Your task to perform on an android device: Go to ESPN.com Image 0: 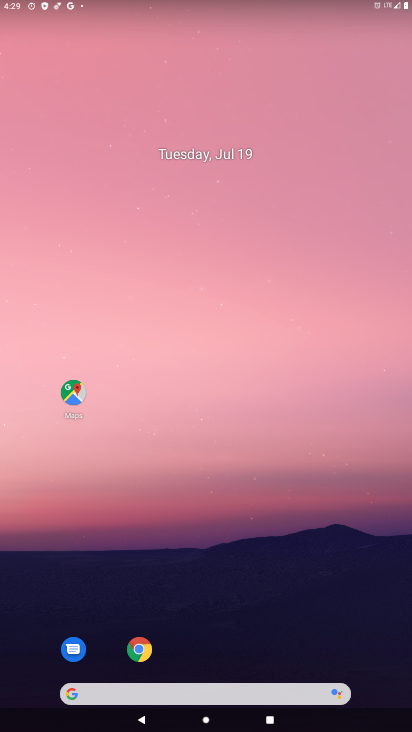
Step 0: drag from (360, 635) to (253, 161)
Your task to perform on an android device: Go to ESPN.com Image 1: 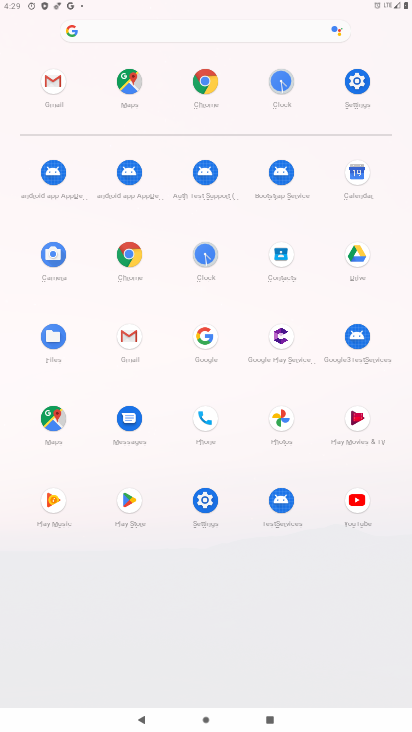
Step 1: click (200, 83)
Your task to perform on an android device: Go to ESPN.com Image 2: 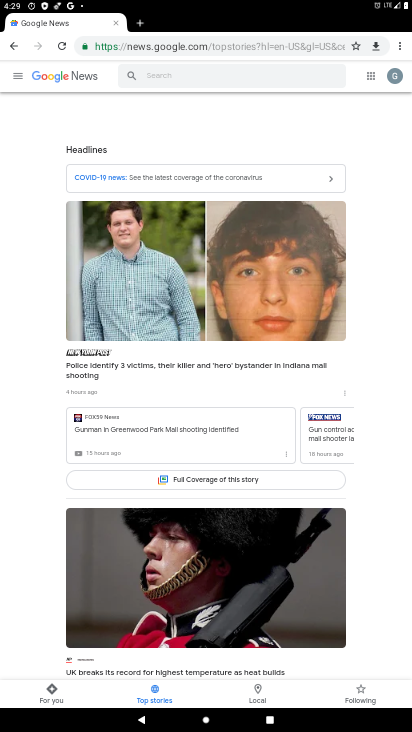
Step 2: click (139, 22)
Your task to perform on an android device: Go to ESPN.com Image 3: 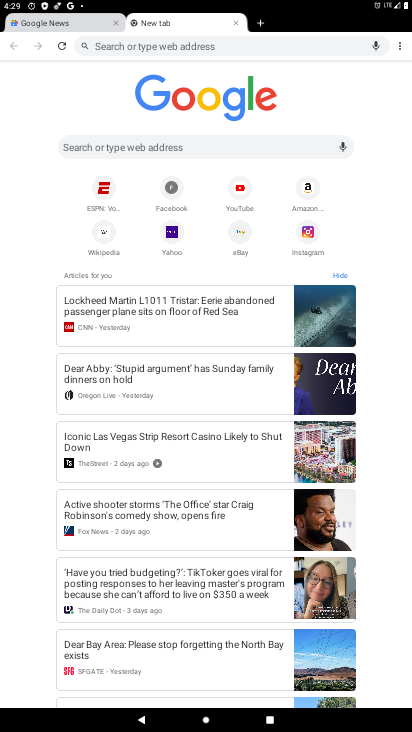
Step 3: click (102, 193)
Your task to perform on an android device: Go to ESPN.com Image 4: 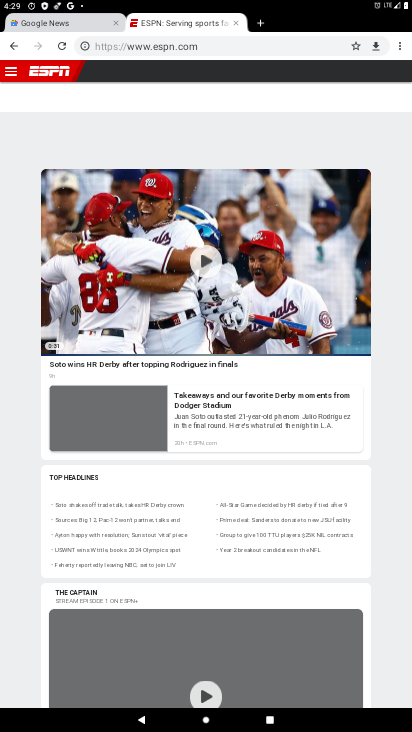
Step 4: task complete